Your task to perform on an android device: turn off location Image 0: 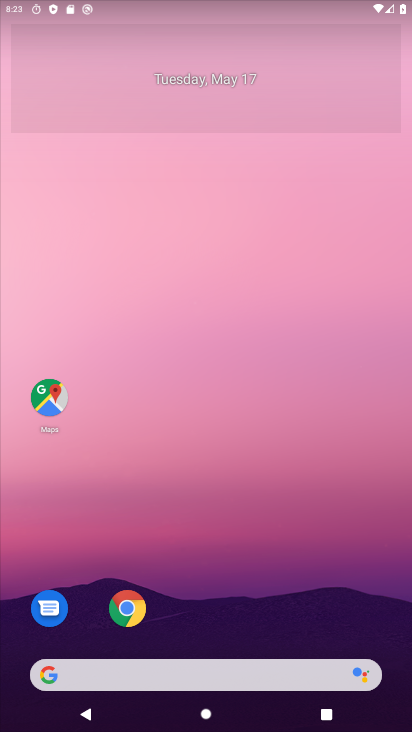
Step 0: drag from (337, 567) to (342, 196)
Your task to perform on an android device: turn off location Image 1: 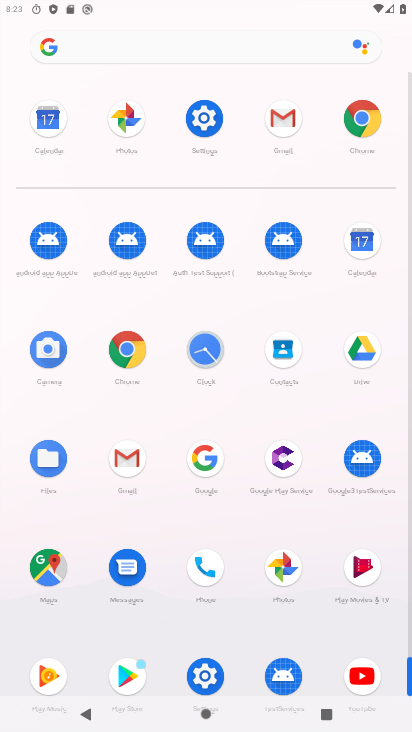
Step 1: click (212, 126)
Your task to perform on an android device: turn off location Image 2: 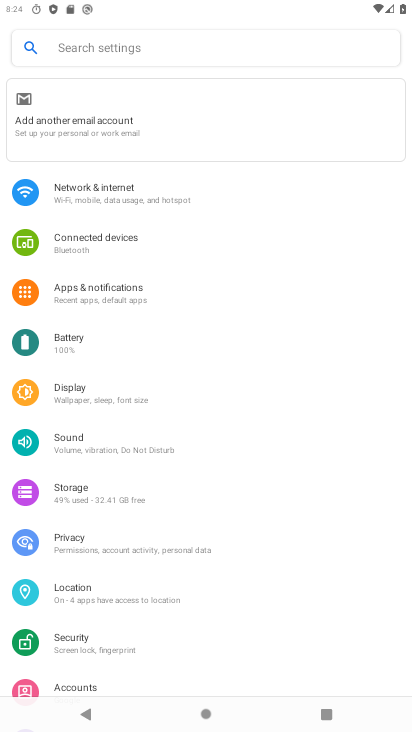
Step 2: click (114, 597)
Your task to perform on an android device: turn off location Image 3: 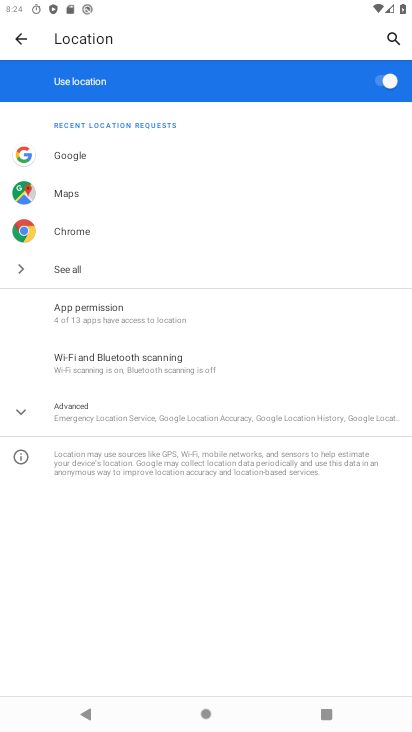
Step 3: click (379, 82)
Your task to perform on an android device: turn off location Image 4: 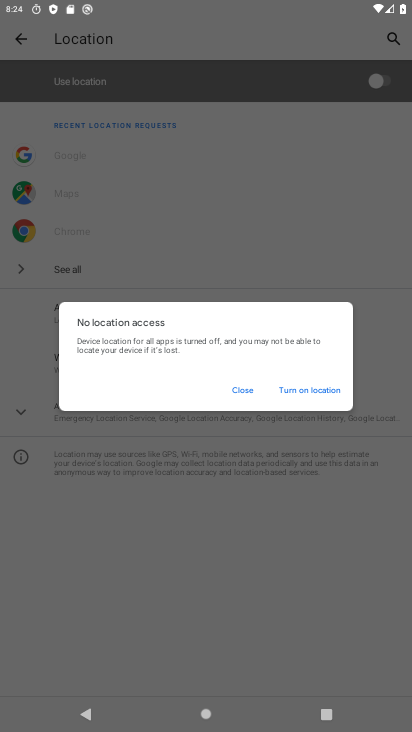
Step 4: task complete